Your task to perform on an android device: Open settings on Google Maps Image 0: 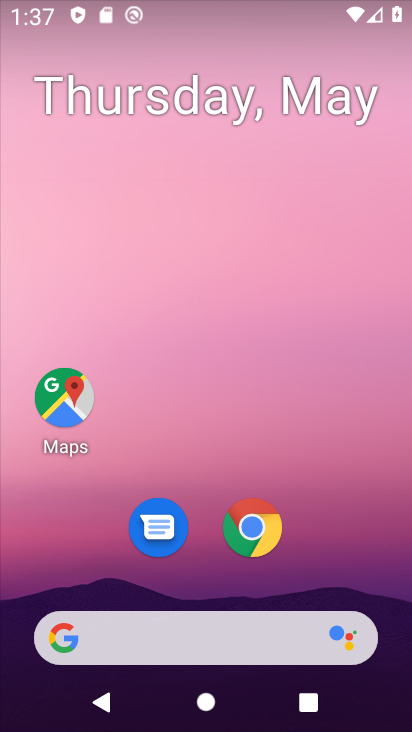
Step 0: click (257, 518)
Your task to perform on an android device: Open settings on Google Maps Image 1: 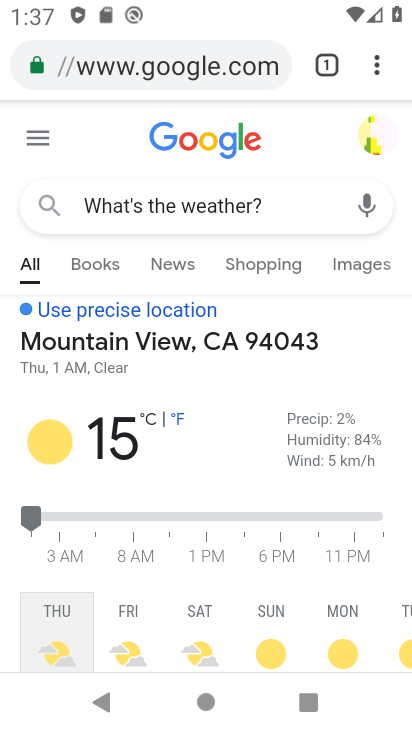
Step 1: task complete